Your task to perform on an android device: open wifi settings Image 0: 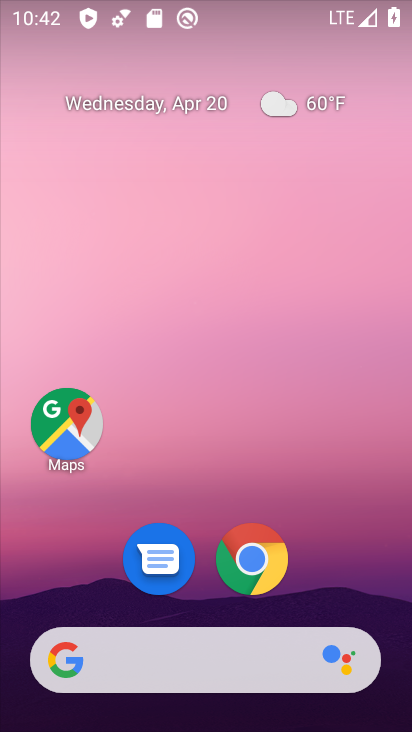
Step 0: drag from (210, 722) to (203, 88)
Your task to perform on an android device: open wifi settings Image 1: 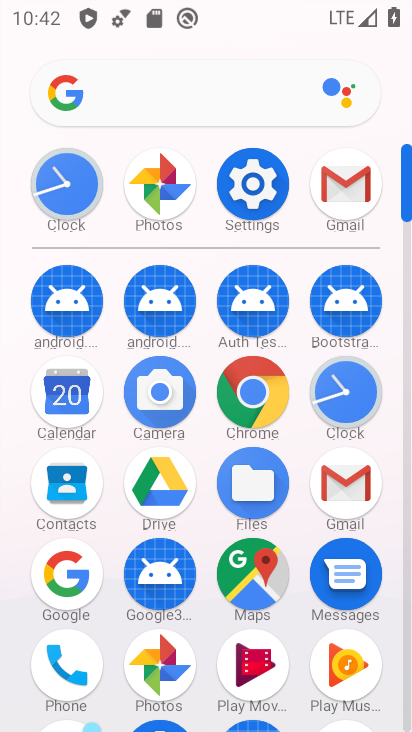
Step 1: click (260, 187)
Your task to perform on an android device: open wifi settings Image 2: 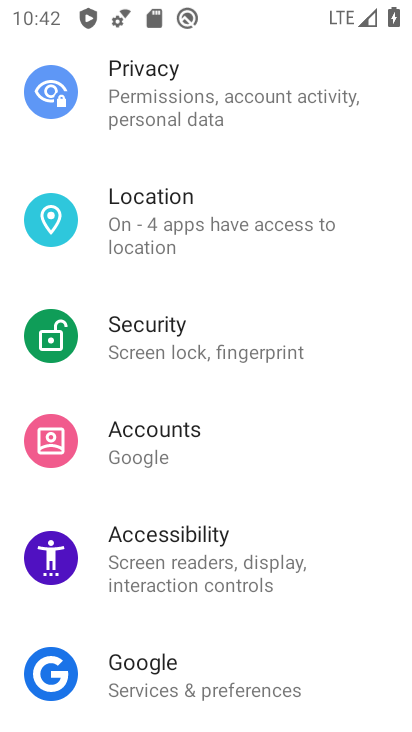
Step 2: drag from (217, 160) to (212, 563)
Your task to perform on an android device: open wifi settings Image 3: 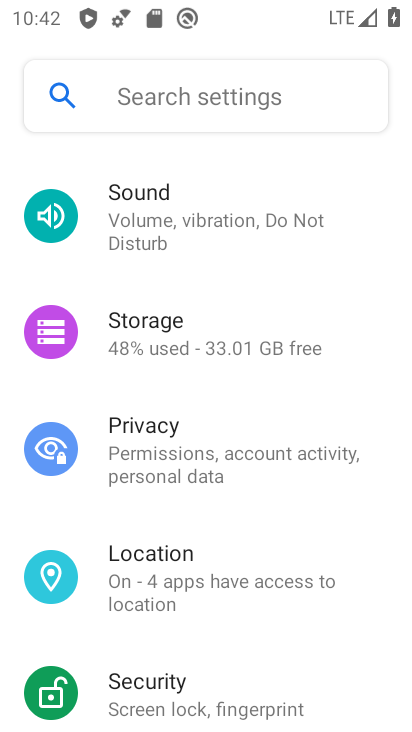
Step 3: drag from (221, 159) to (200, 590)
Your task to perform on an android device: open wifi settings Image 4: 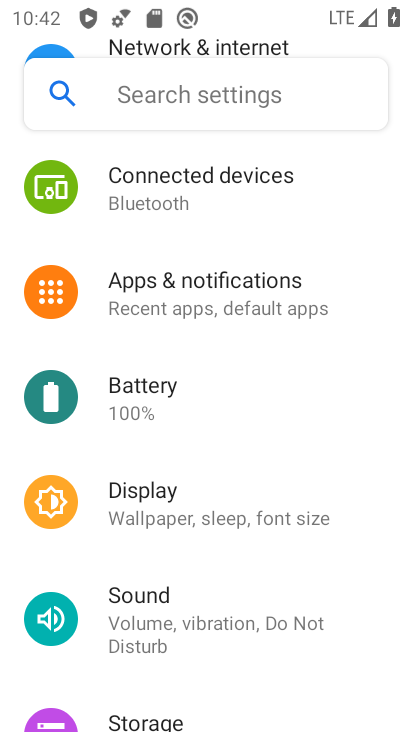
Step 4: drag from (217, 148) to (206, 545)
Your task to perform on an android device: open wifi settings Image 5: 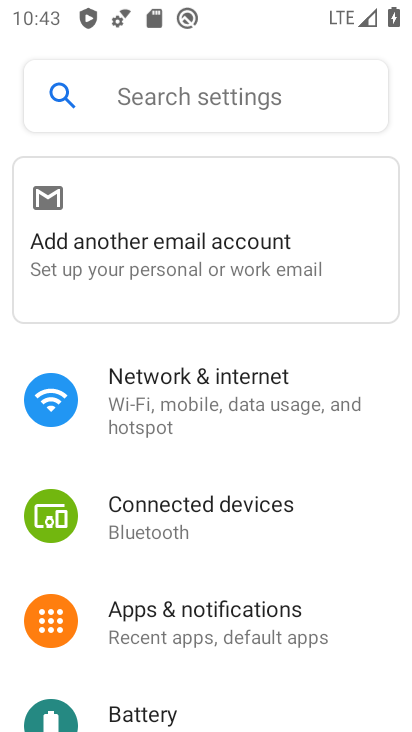
Step 5: click (182, 389)
Your task to perform on an android device: open wifi settings Image 6: 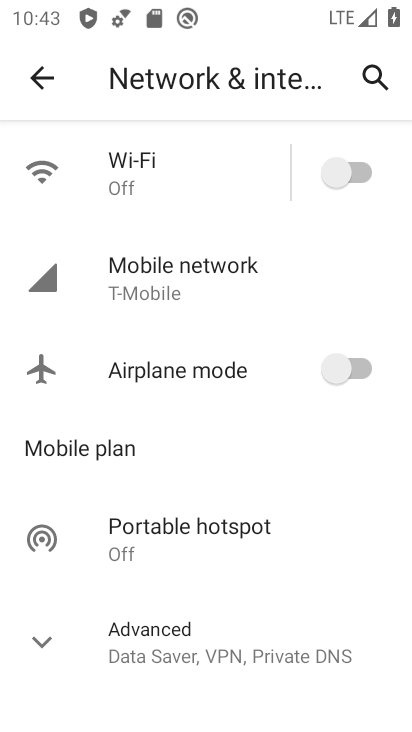
Step 6: click (132, 159)
Your task to perform on an android device: open wifi settings Image 7: 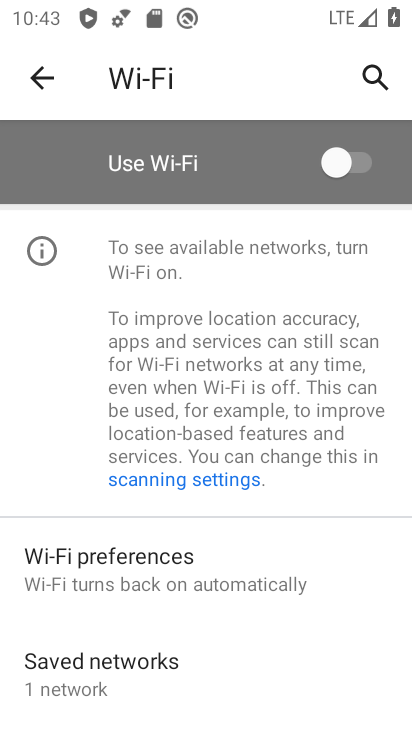
Step 7: task complete